Your task to perform on an android device: check the backup settings in the google photos Image 0: 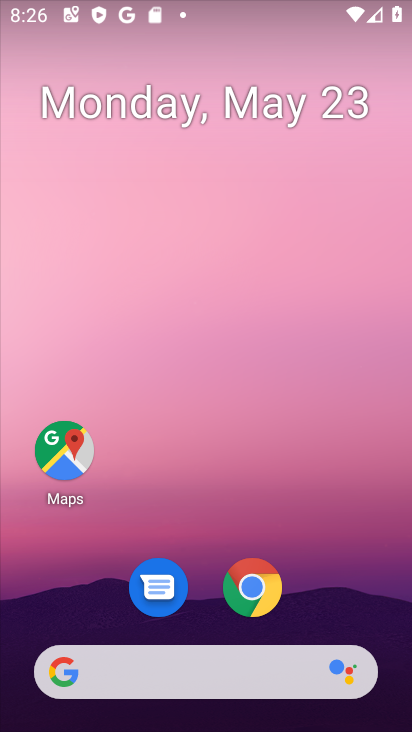
Step 0: drag from (255, 576) to (260, 104)
Your task to perform on an android device: check the backup settings in the google photos Image 1: 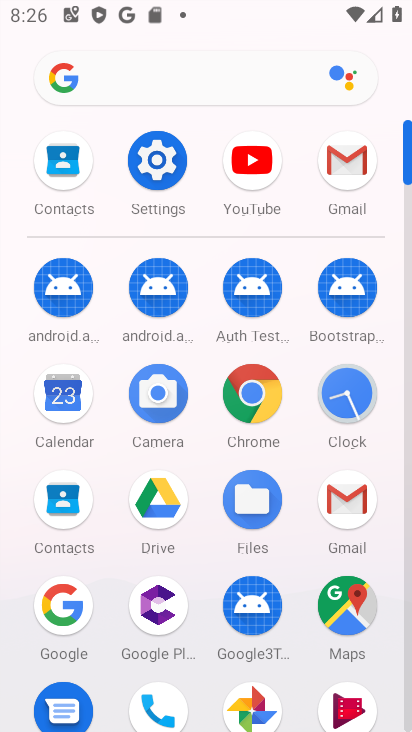
Step 1: click (239, 700)
Your task to perform on an android device: check the backup settings in the google photos Image 2: 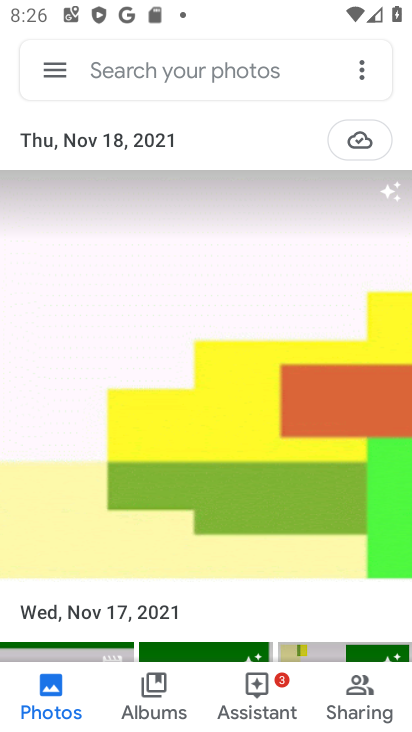
Step 2: click (51, 64)
Your task to perform on an android device: check the backup settings in the google photos Image 3: 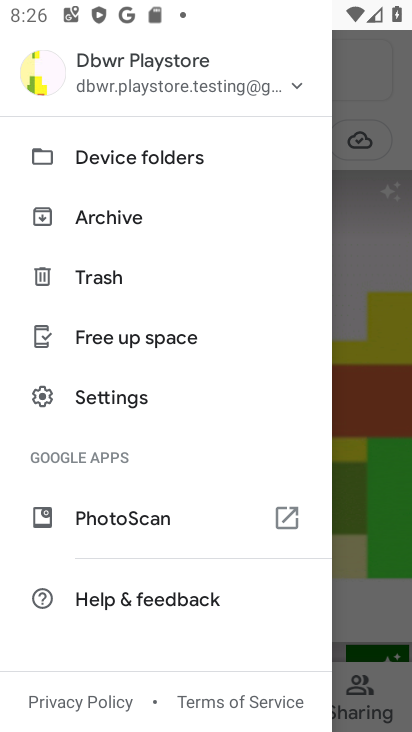
Step 3: click (108, 405)
Your task to perform on an android device: check the backup settings in the google photos Image 4: 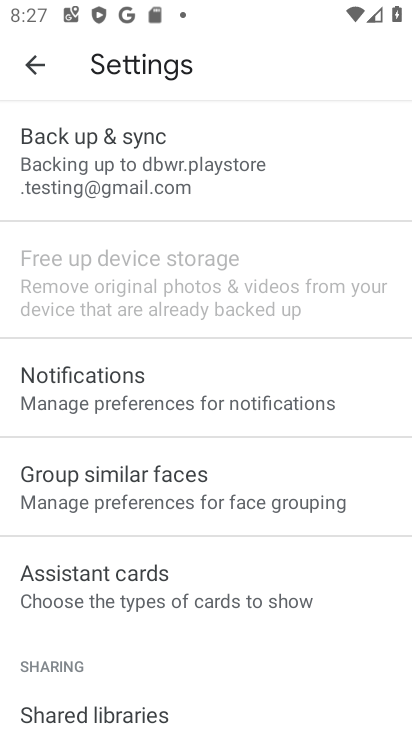
Step 4: task complete